Your task to perform on an android device: open a bookmark in the chrome app Image 0: 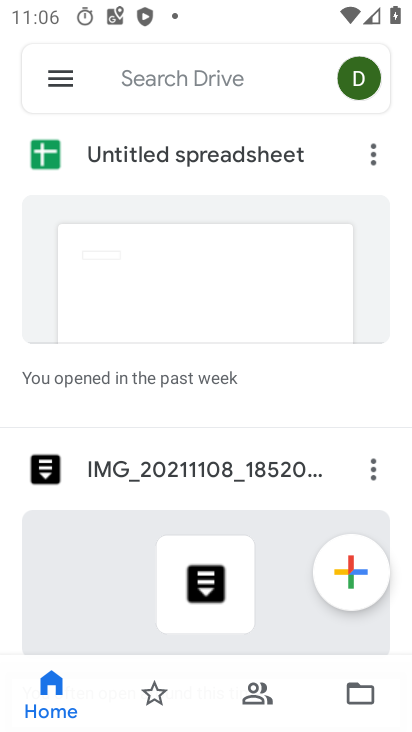
Step 0: press home button
Your task to perform on an android device: open a bookmark in the chrome app Image 1: 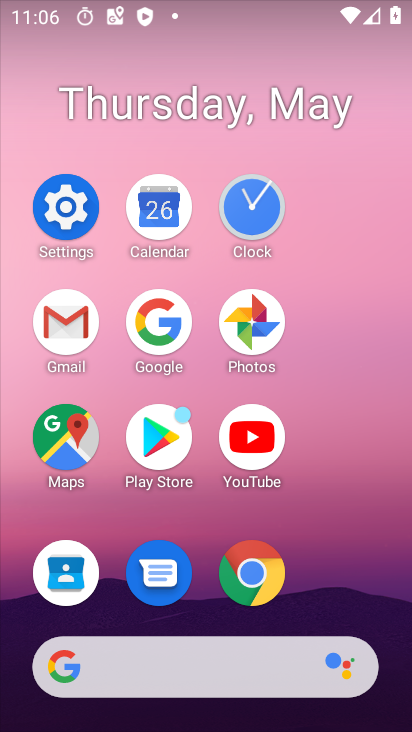
Step 1: click (279, 587)
Your task to perform on an android device: open a bookmark in the chrome app Image 2: 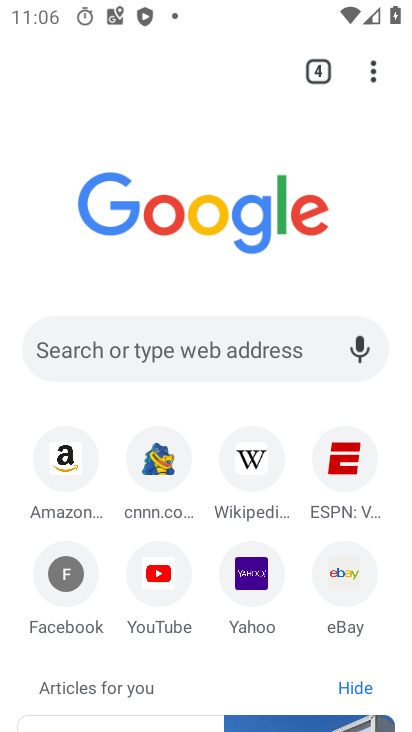
Step 2: click (373, 73)
Your task to perform on an android device: open a bookmark in the chrome app Image 3: 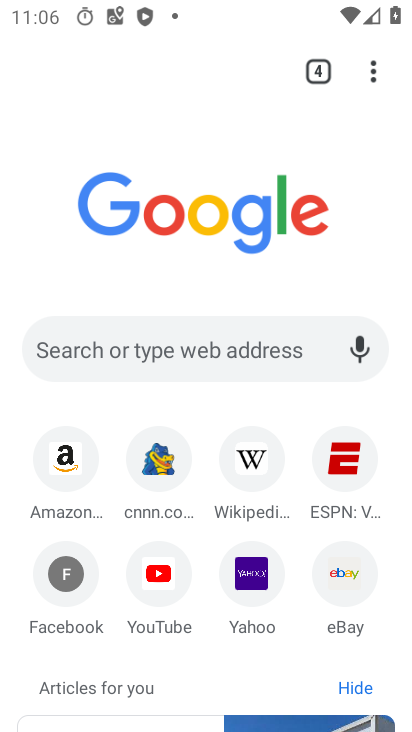
Step 3: click (368, 76)
Your task to perform on an android device: open a bookmark in the chrome app Image 4: 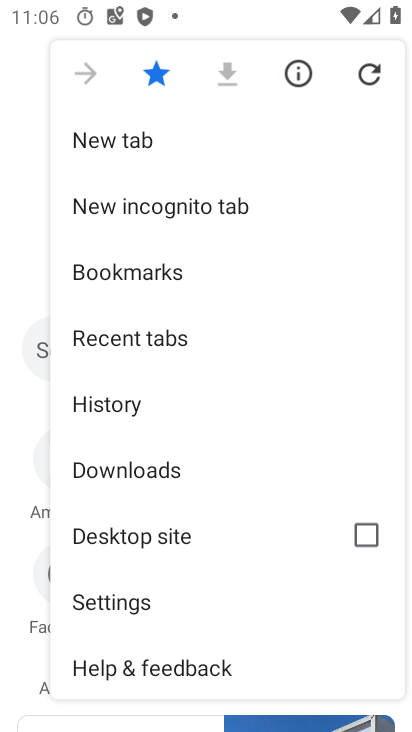
Step 4: click (165, 269)
Your task to perform on an android device: open a bookmark in the chrome app Image 5: 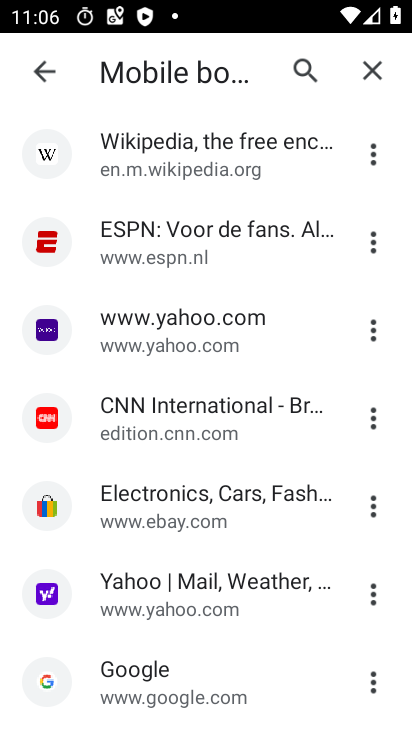
Step 5: click (124, 232)
Your task to perform on an android device: open a bookmark in the chrome app Image 6: 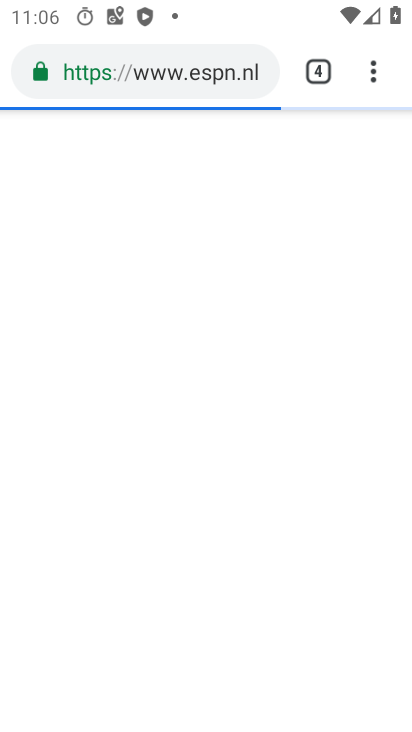
Step 6: task complete